Your task to perform on an android device: change text size in settings app Image 0: 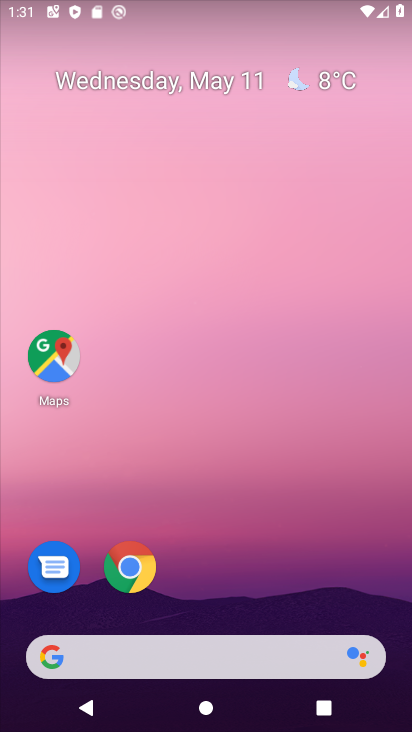
Step 0: drag from (322, 558) to (232, 169)
Your task to perform on an android device: change text size in settings app Image 1: 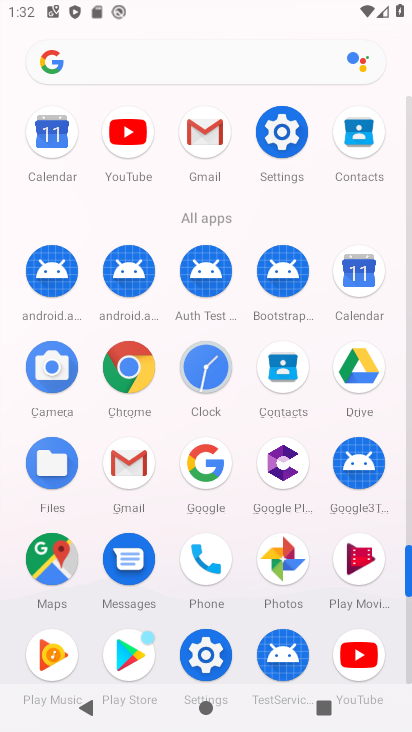
Step 1: click (277, 120)
Your task to perform on an android device: change text size in settings app Image 2: 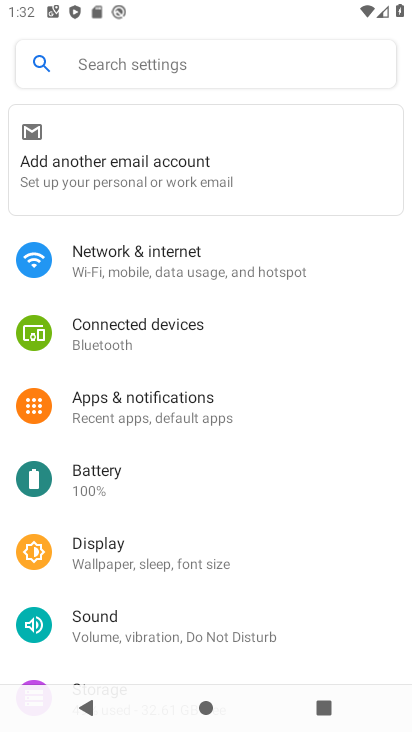
Step 2: click (194, 548)
Your task to perform on an android device: change text size in settings app Image 3: 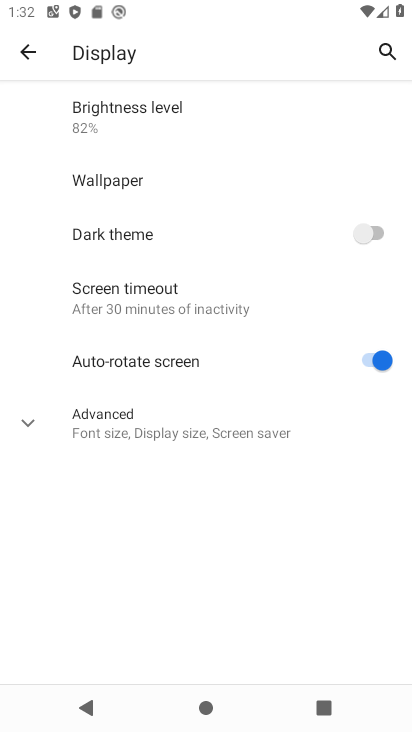
Step 3: click (165, 419)
Your task to perform on an android device: change text size in settings app Image 4: 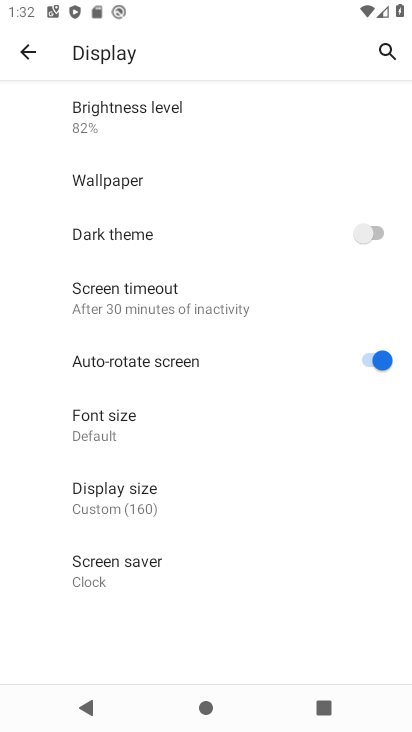
Step 4: click (133, 425)
Your task to perform on an android device: change text size in settings app Image 5: 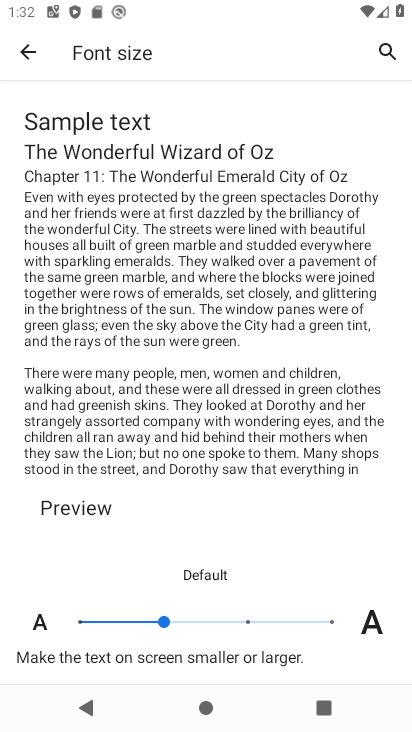
Step 5: task complete